Your task to perform on an android device: open app "PUBG MOBILE" (install if not already installed), go to login, and select forgot password Image 0: 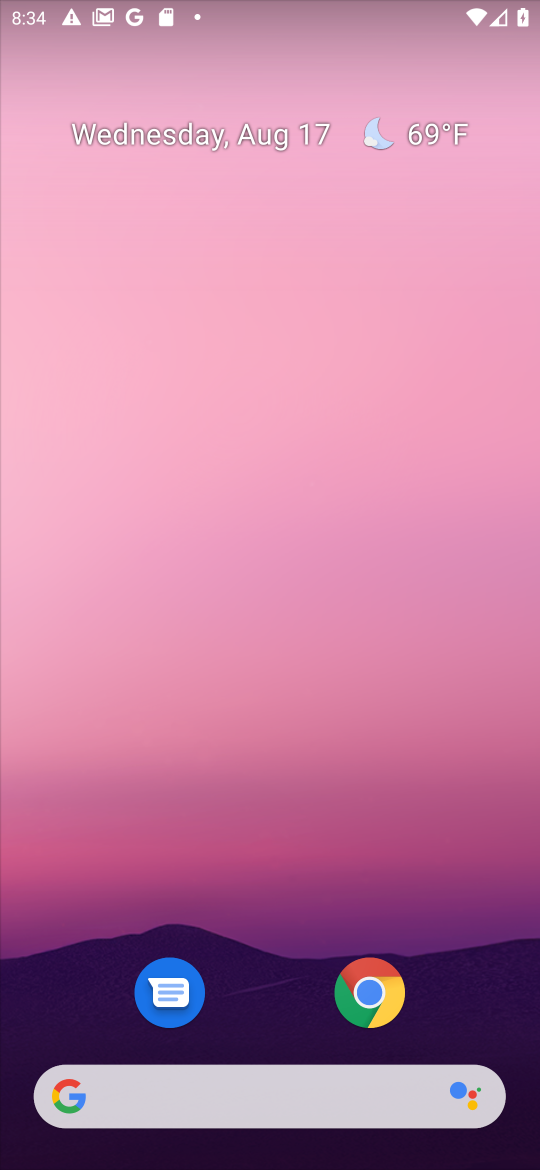
Step 0: drag from (479, 1008) to (285, 45)
Your task to perform on an android device: open app "PUBG MOBILE" (install if not already installed), go to login, and select forgot password Image 1: 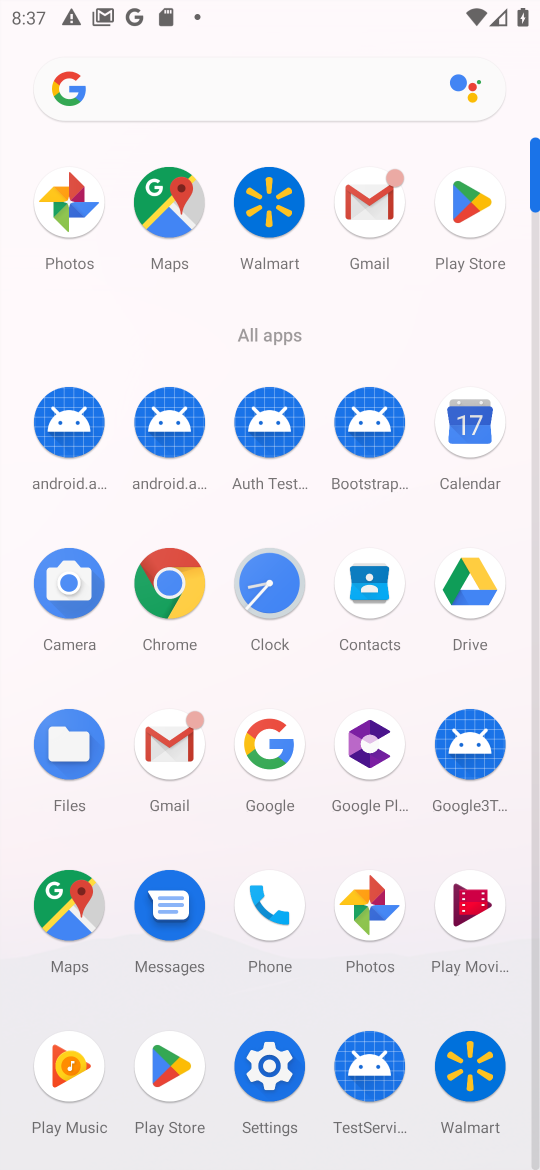
Step 1: click (149, 1067)
Your task to perform on an android device: open app "PUBG MOBILE" (install if not already installed), go to login, and select forgot password Image 2: 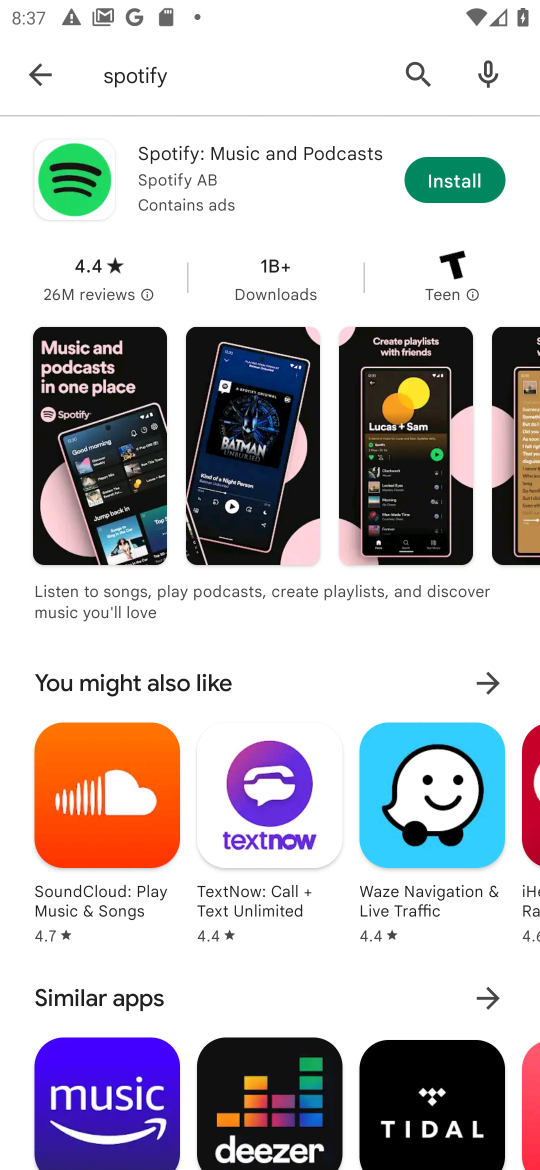
Step 2: press back button
Your task to perform on an android device: open app "PUBG MOBILE" (install if not already installed), go to login, and select forgot password Image 3: 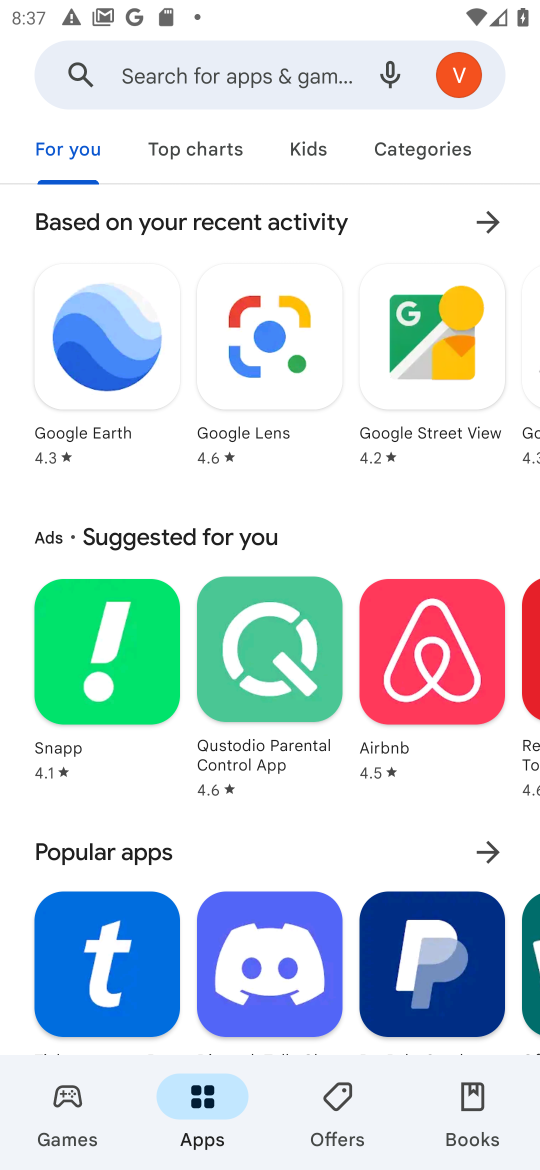
Step 3: click (189, 75)
Your task to perform on an android device: open app "PUBG MOBILE" (install if not already installed), go to login, and select forgot password Image 4: 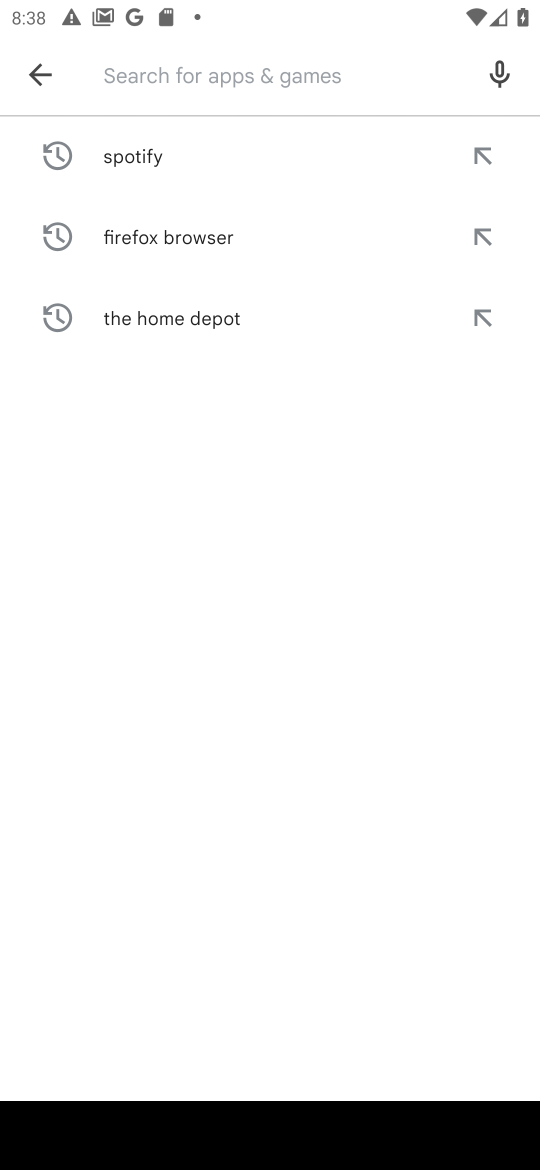
Step 4: type "PUBG MOBILE"
Your task to perform on an android device: open app "PUBG MOBILE" (install if not already installed), go to login, and select forgot password Image 5: 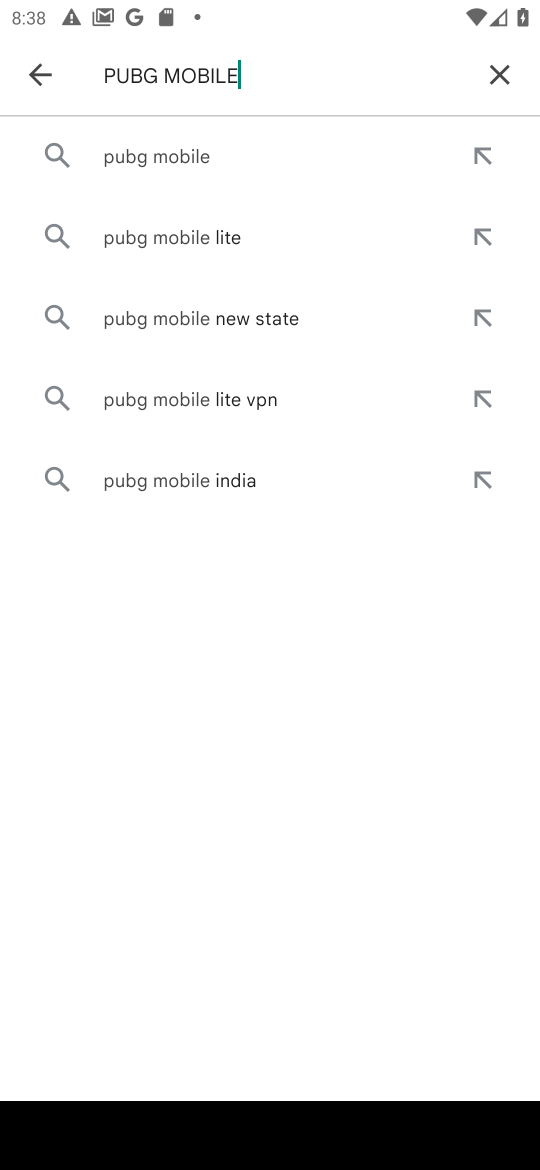
Step 5: click (179, 163)
Your task to perform on an android device: open app "PUBG MOBILE" (install if not already installed), go to login, and select forgot password Image 6: 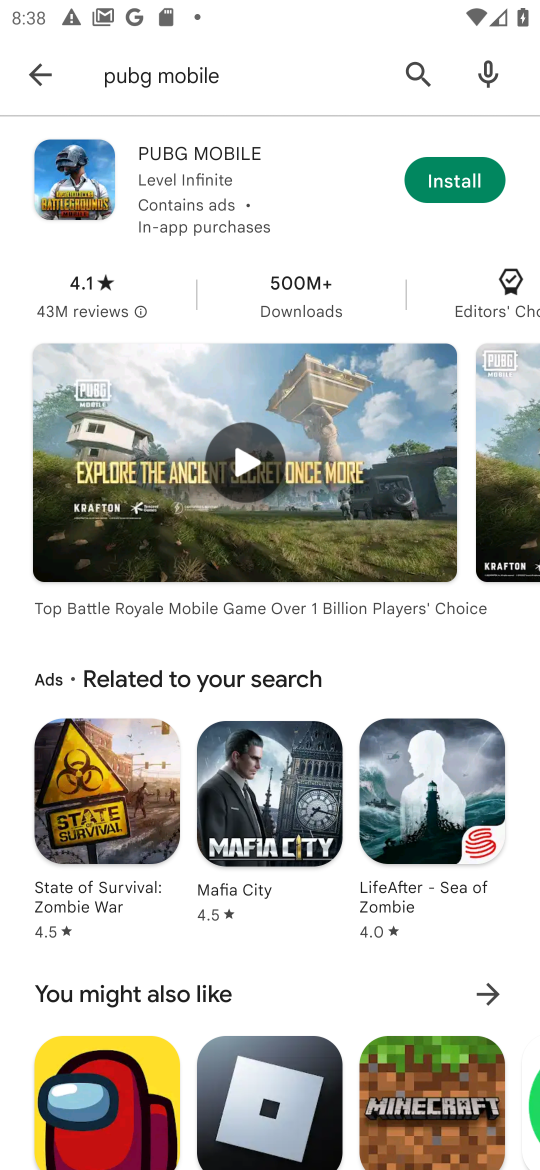
Step 6: task complete